Your task to perform on an android device: Open the calendar and show me this week's events? Image 0: 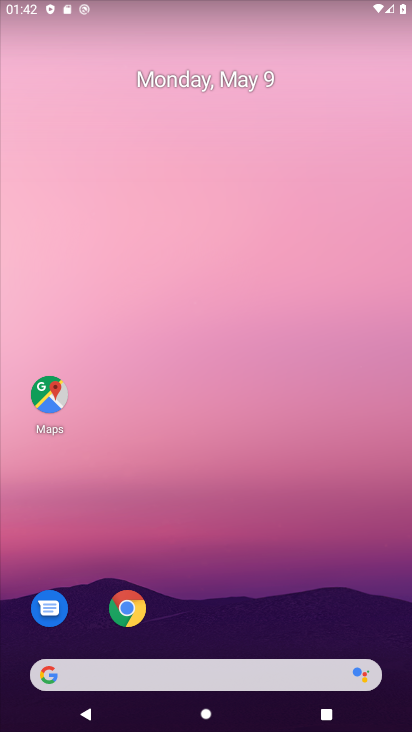
Step 0: drag from (253, 614) to (407, 177)
Your task to perform on an android device: Open the calendar and show me this week's events? Image 1: 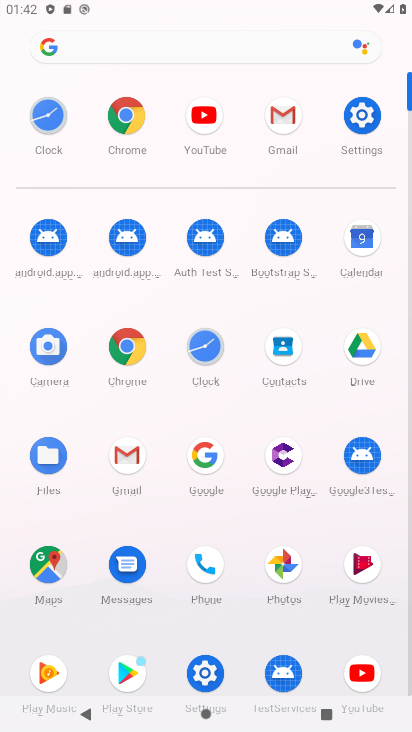
Step 1: click (369, 248)
Your task to perform on an android device: Open the calendar and show me this week's events? Image 2: 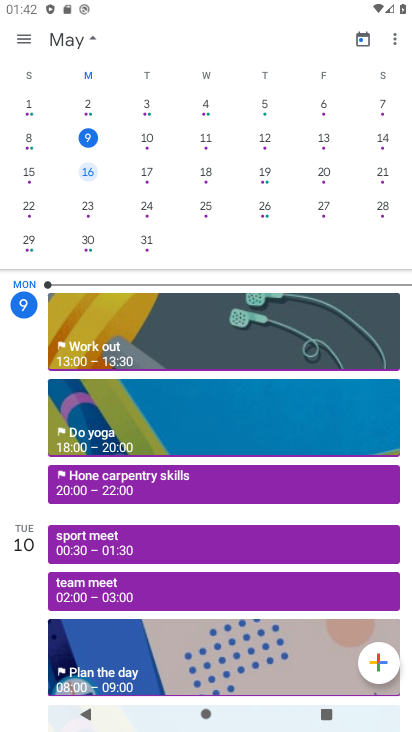
Step 2: click (159, 141)
Your task to perform on an android device: Open the calendar and show me this week's events? Image 3: 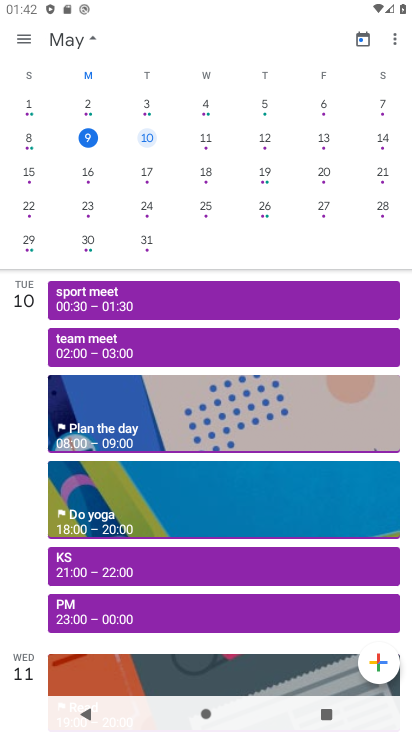
Step 3: task complete